Your task to perform on an android device: Add dell xps to the cart on bestbuy Image 0: 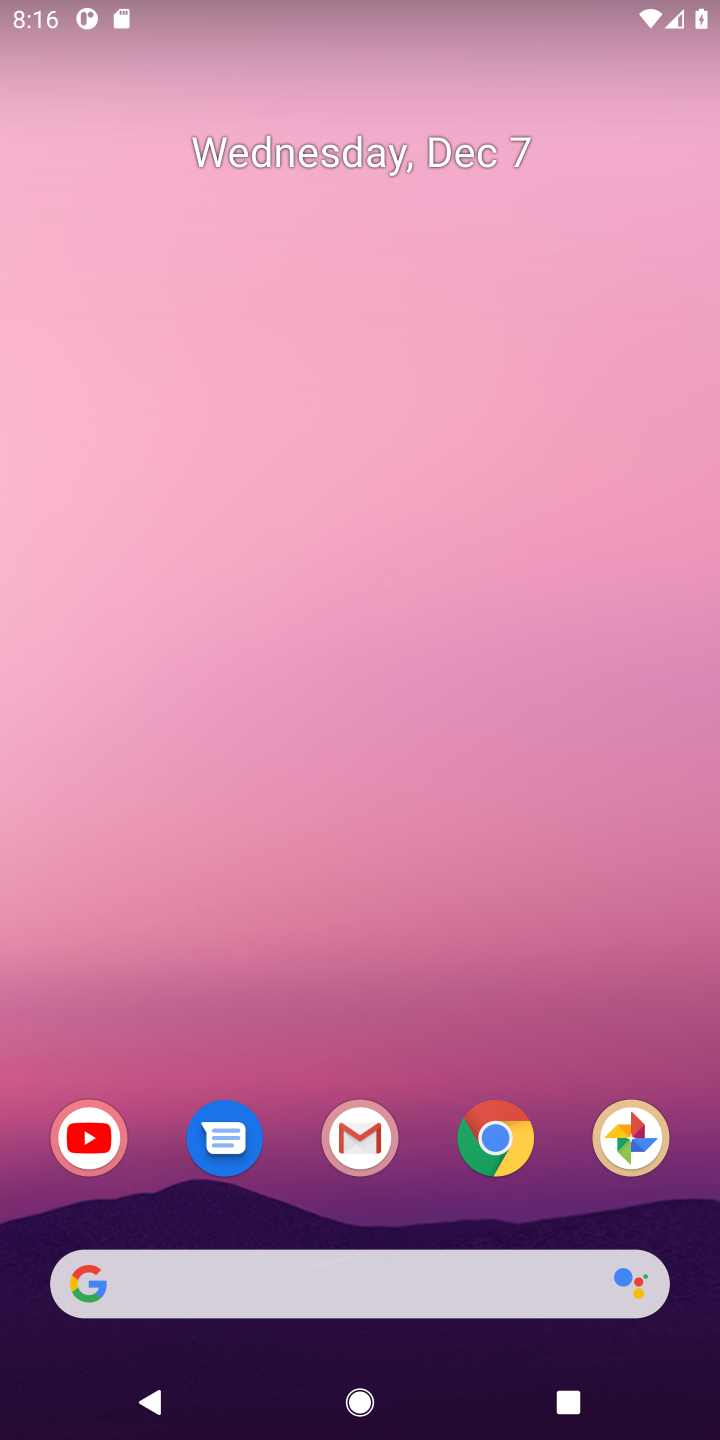
Step 0: press home button
Your task to perform on an android device: Add dell xps to the cart on bestbuy Image 1: 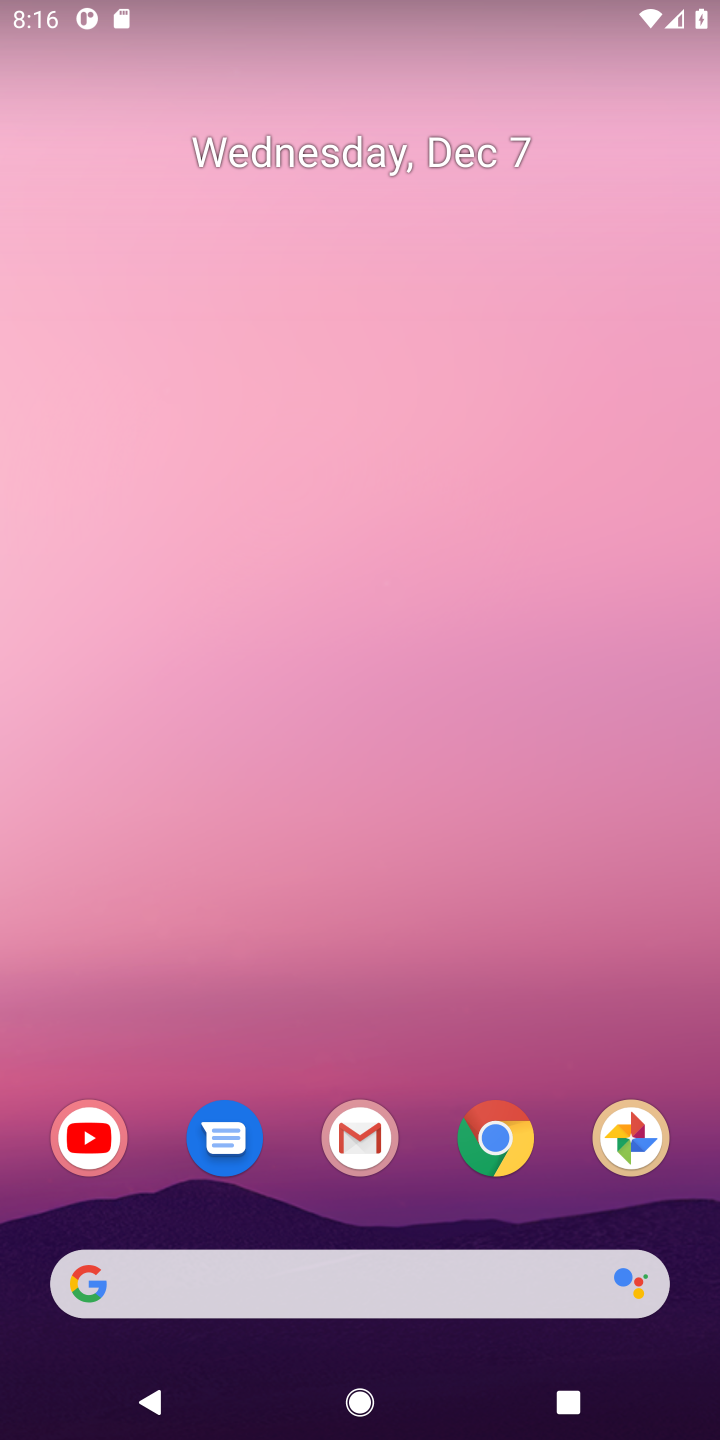
Step 1: click (155, 1291)
Your task to perform on an android device: Add dell xps to the cart on bestbuy Image 2: 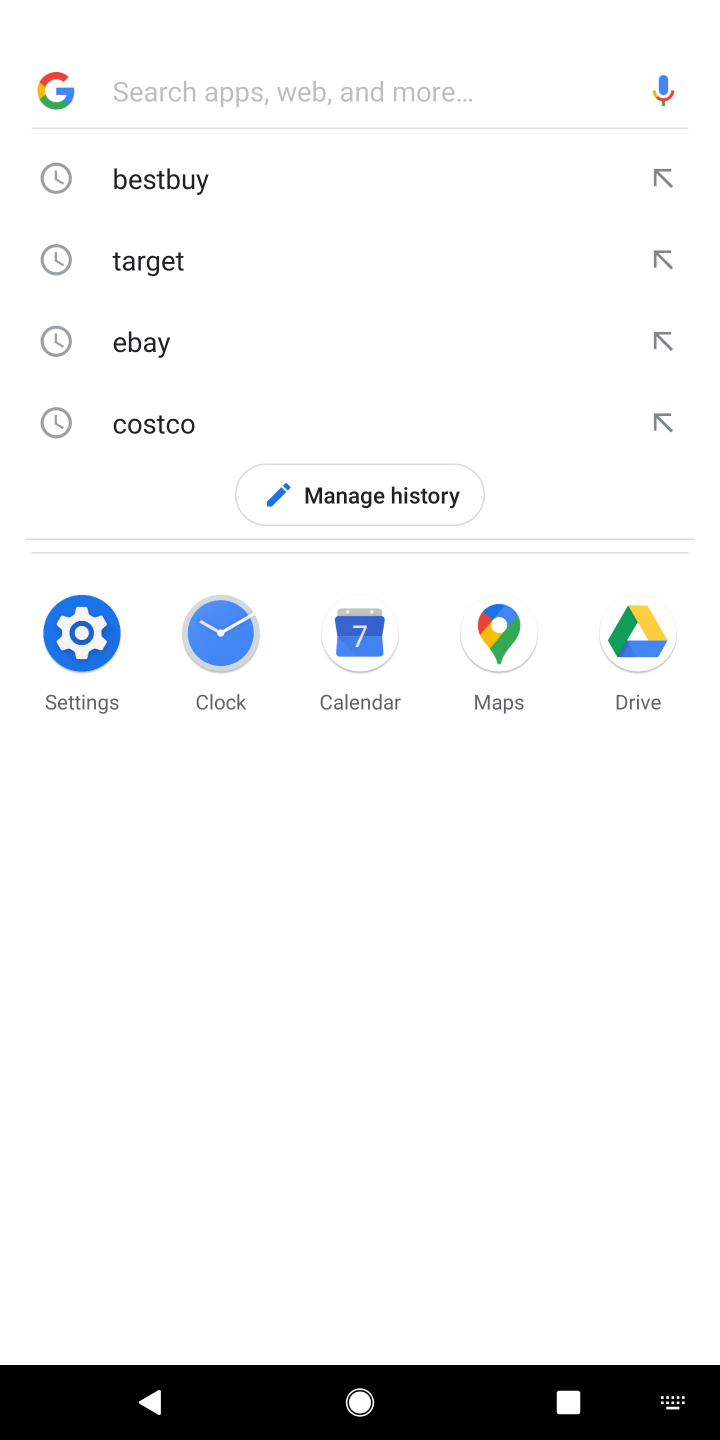
Step 2: type "bestbuy"
Your task to perform on an android device: Add dell xps to the cart on bestbuy Image 3: 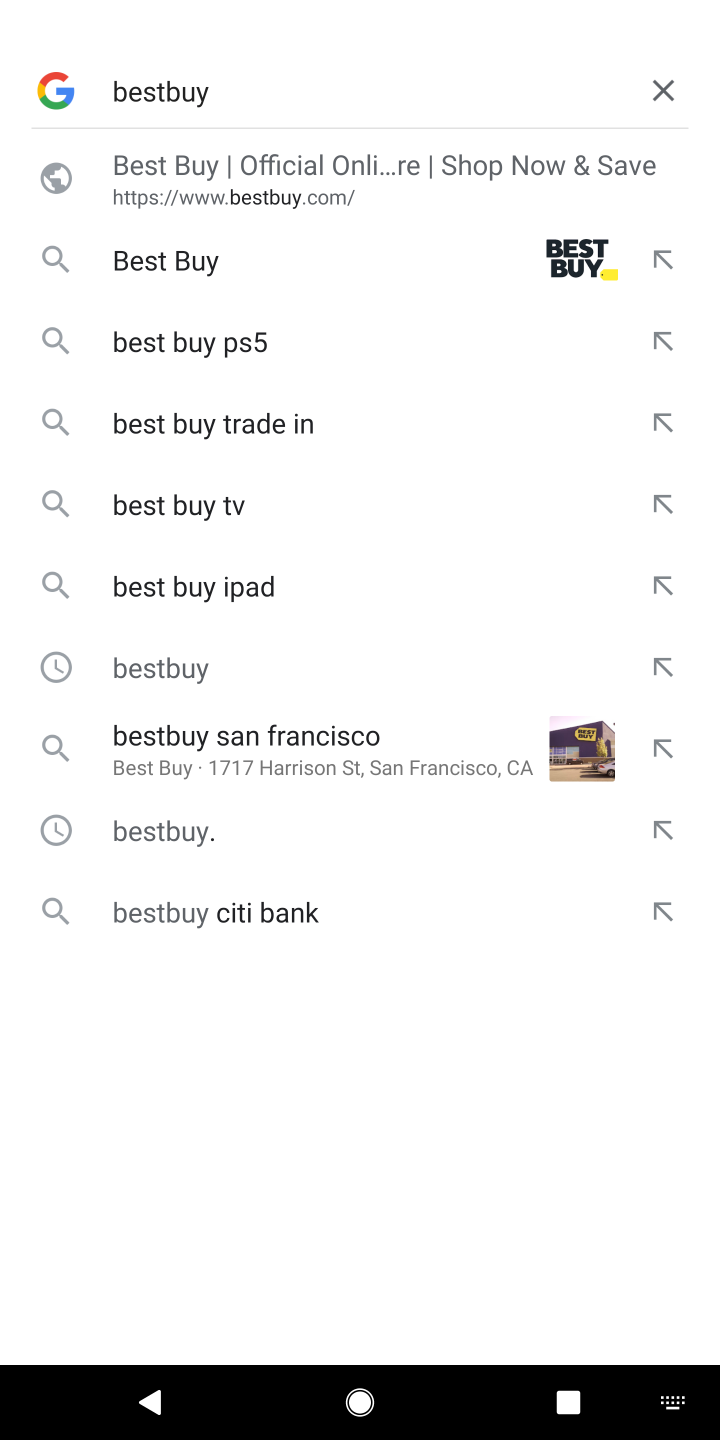
Step 3: press enter
Your task to perform on an android device: Add dell xps to the cart on bestbuy Image 4: 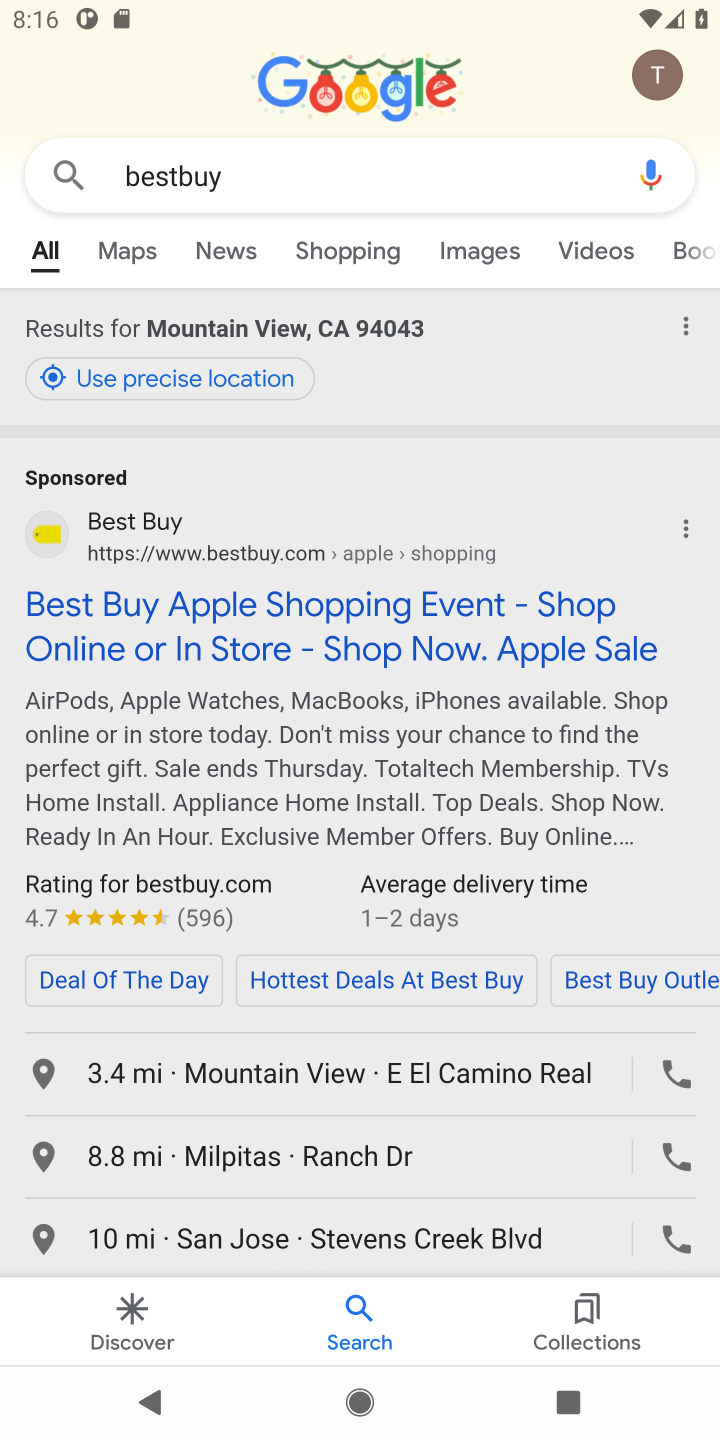
Step 4: click (359, 601)
Your task to perform on an android device: Add dell xps to the cart on bestbuy Image 5: 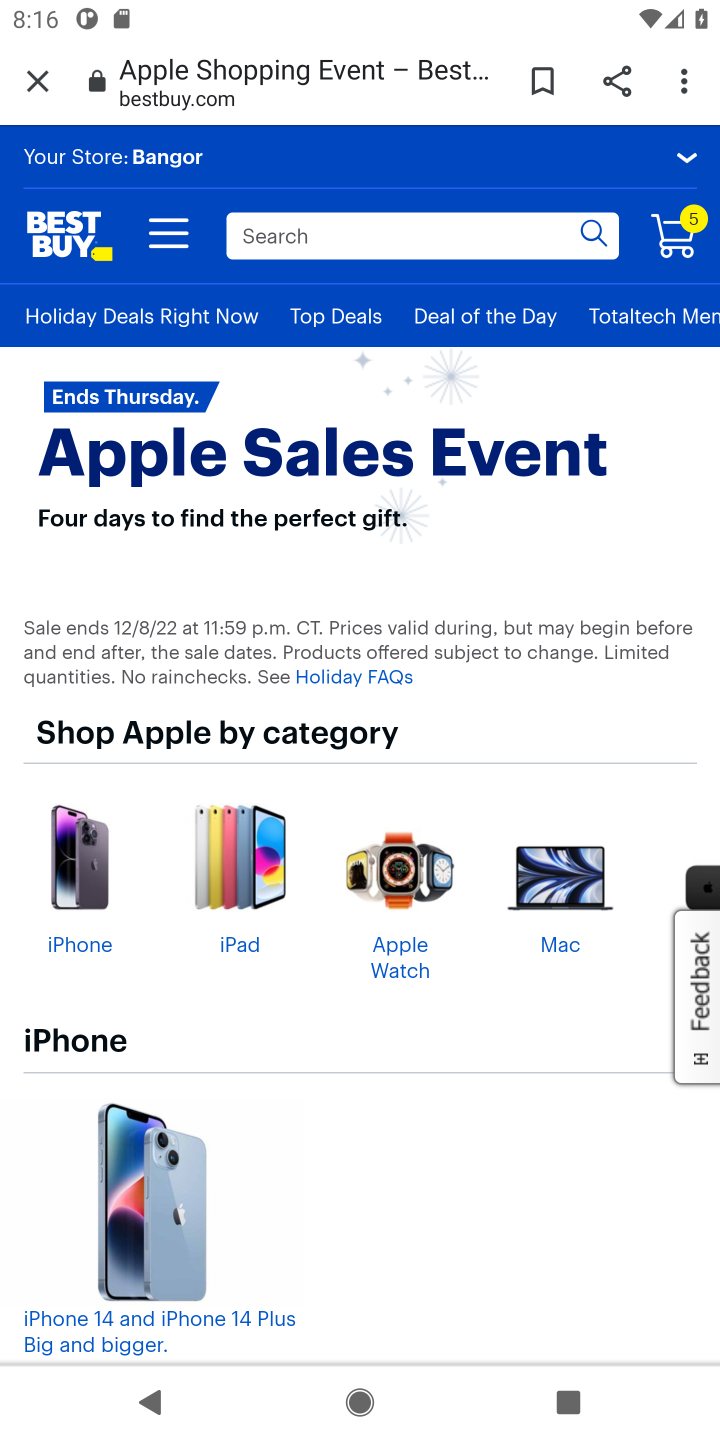
Step 5: click (267, 235)
Your task to perform on an android device: Add dell xps to the cart on bestbuy Image 6: 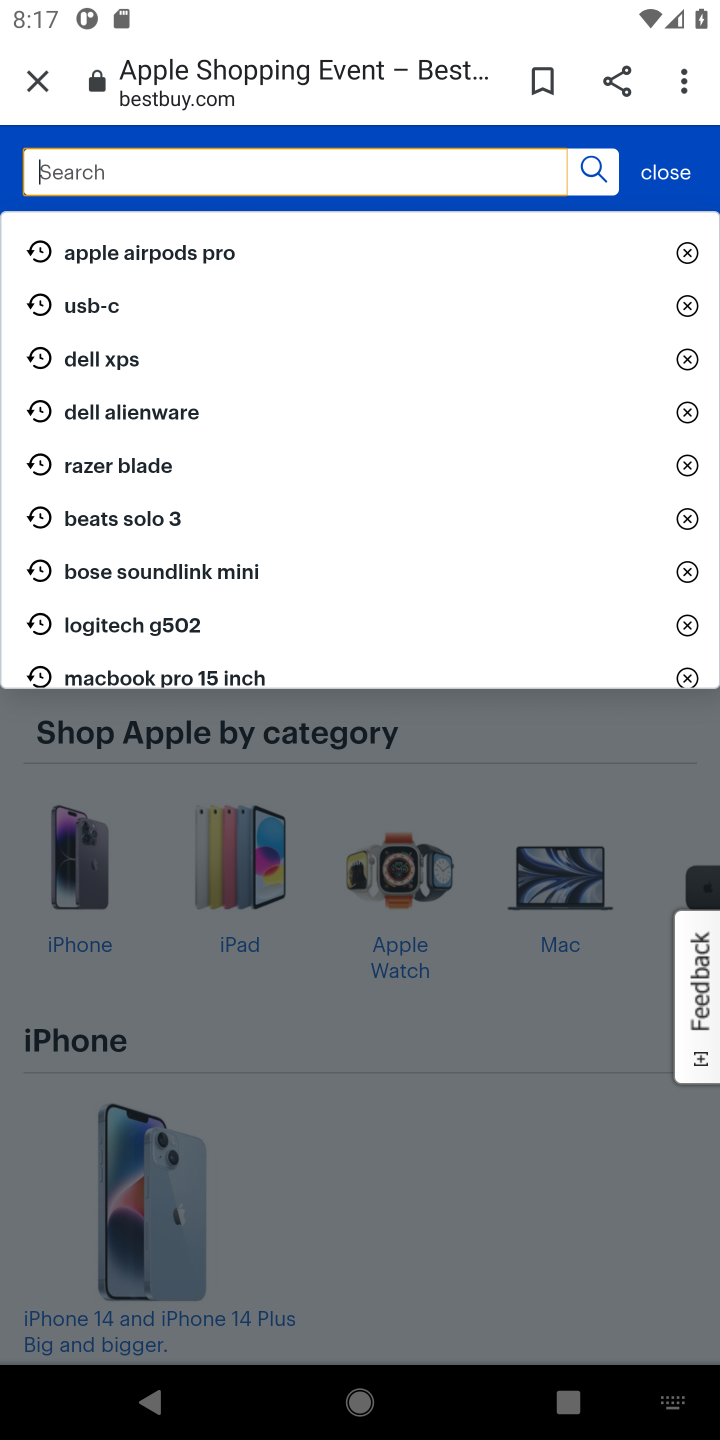
Step 6: press enter
Your task to perform on an android device: Add dell xps to the cart on bestbuy Image 7: 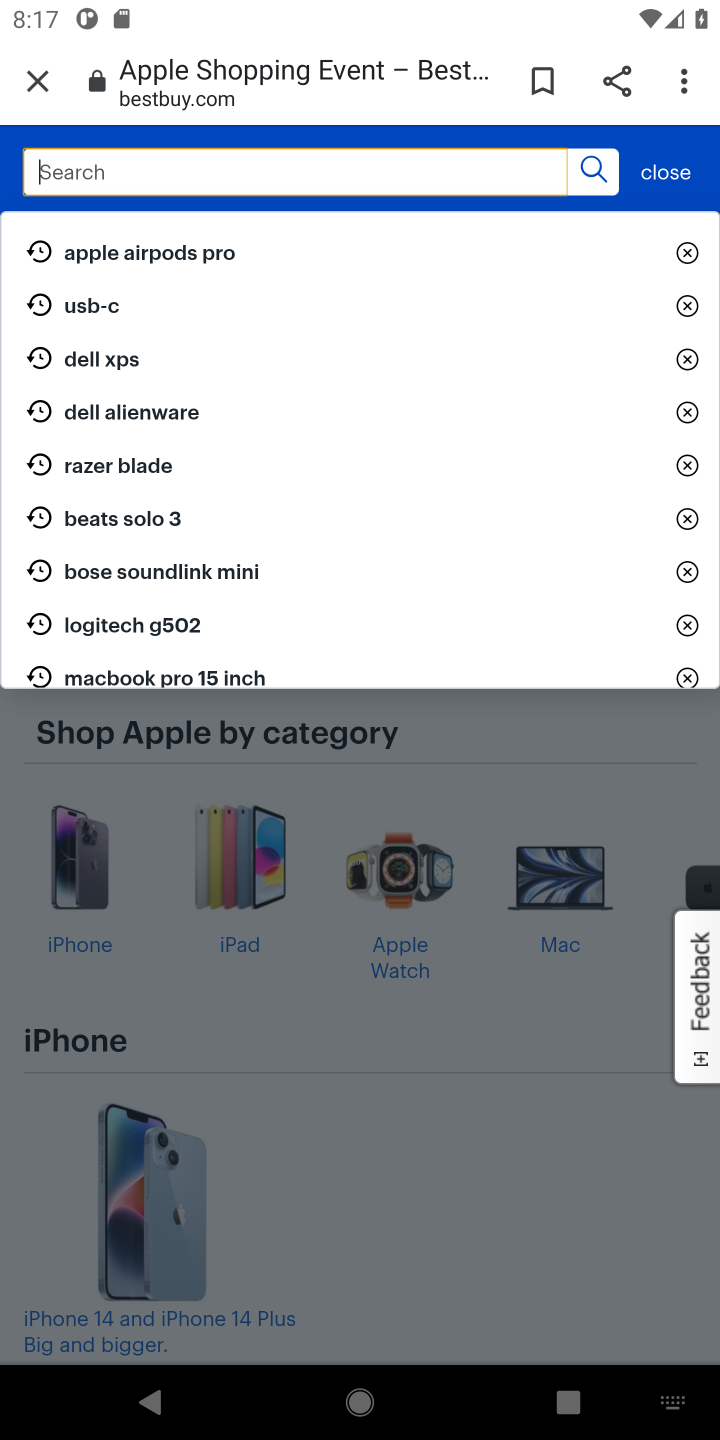
Step 7: type "dell xps"
Your task to perform on an android device: Add dell xps to the cart on bestbuy Image 8: 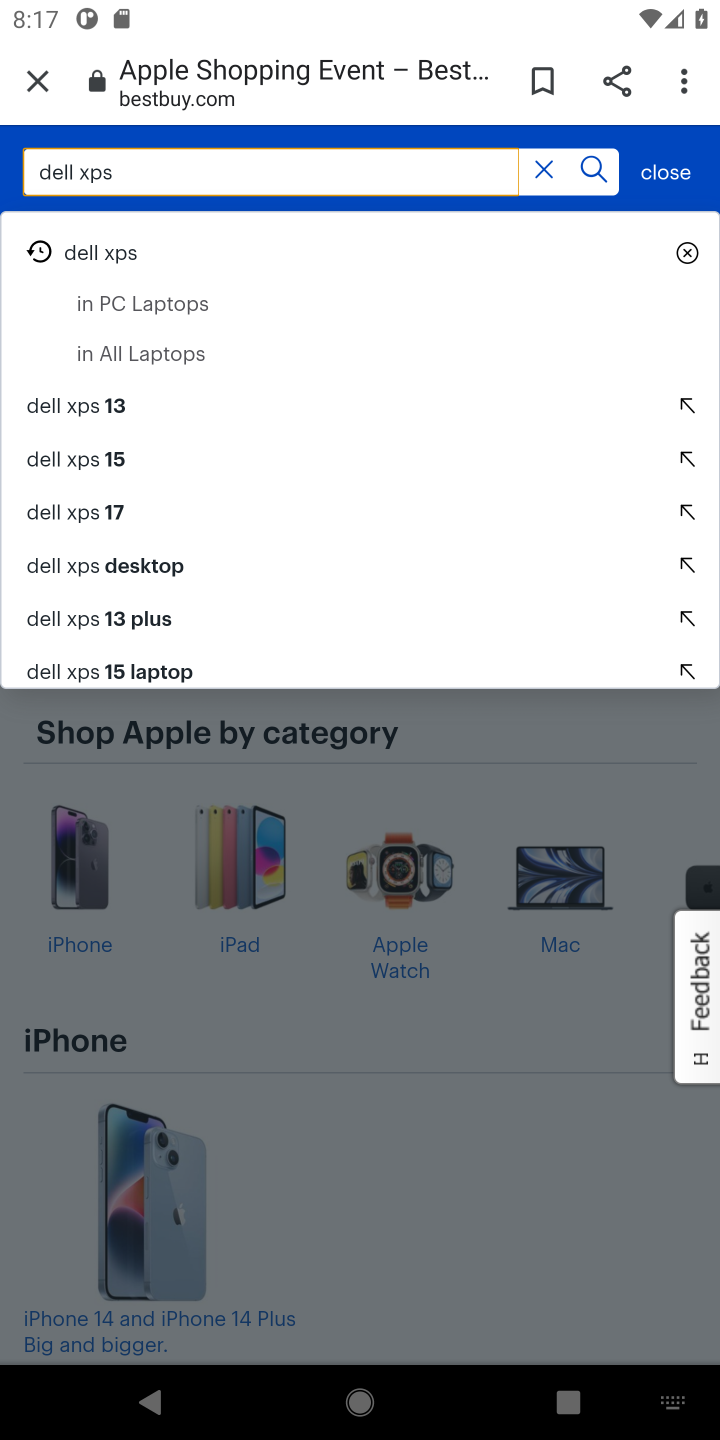
Step 8: click (586, 160)
Your task to perform on an android device: Add dell xps to the cart on bestbuy Image 9: 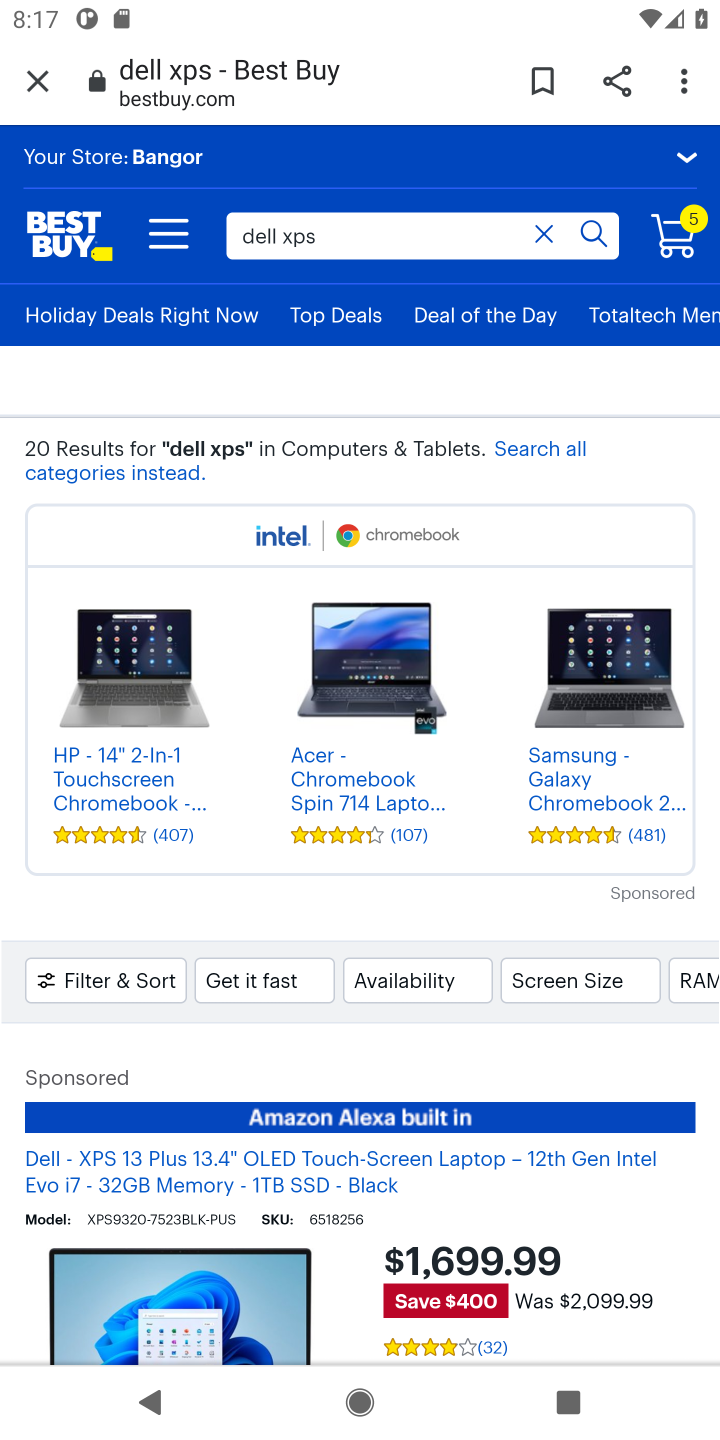
Step 9: drag from (364, 1224) to (441, 415)
Your task to perform on an android device: Add dell xps to the cart on bestbuy Image 10: 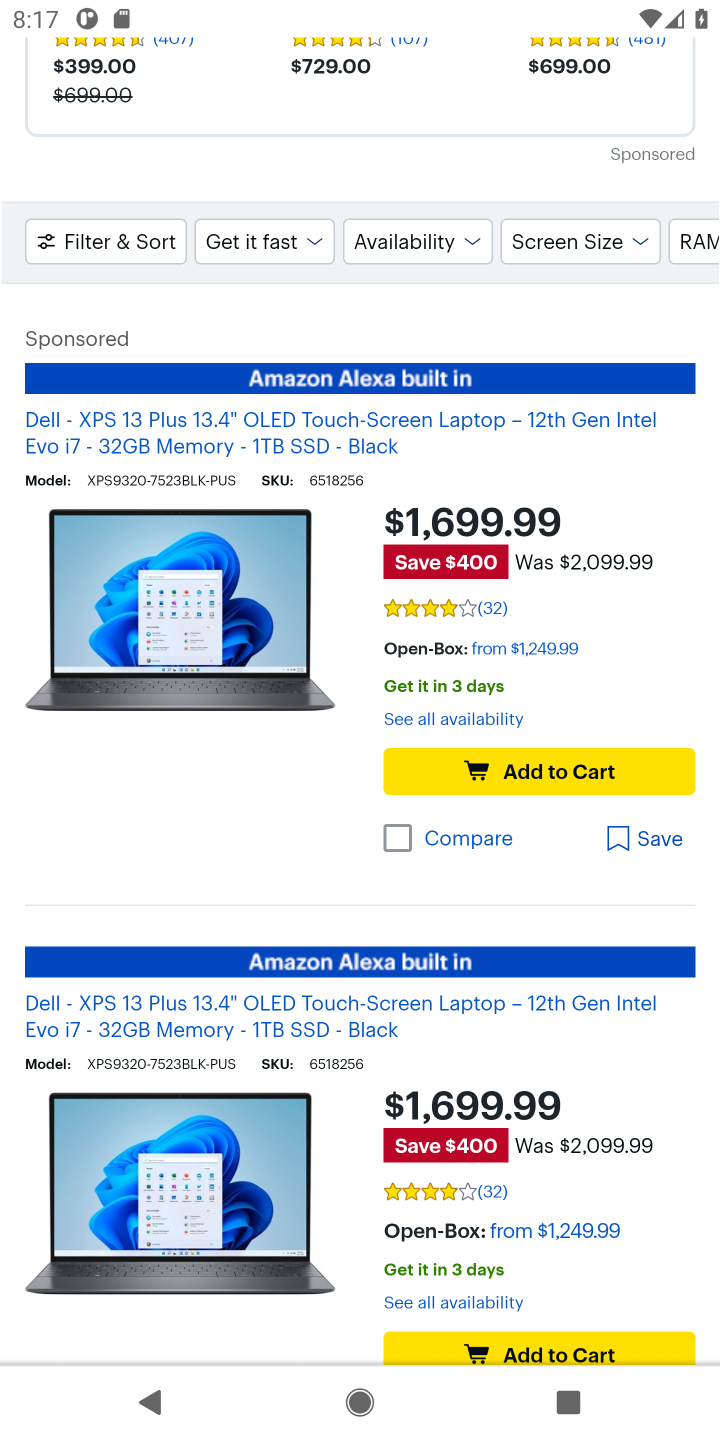
Step 10: drag from (316, 364) to (322, 870)
Your task to perform on an android device: Add dell xps to the cart on bestbuy Image 11: 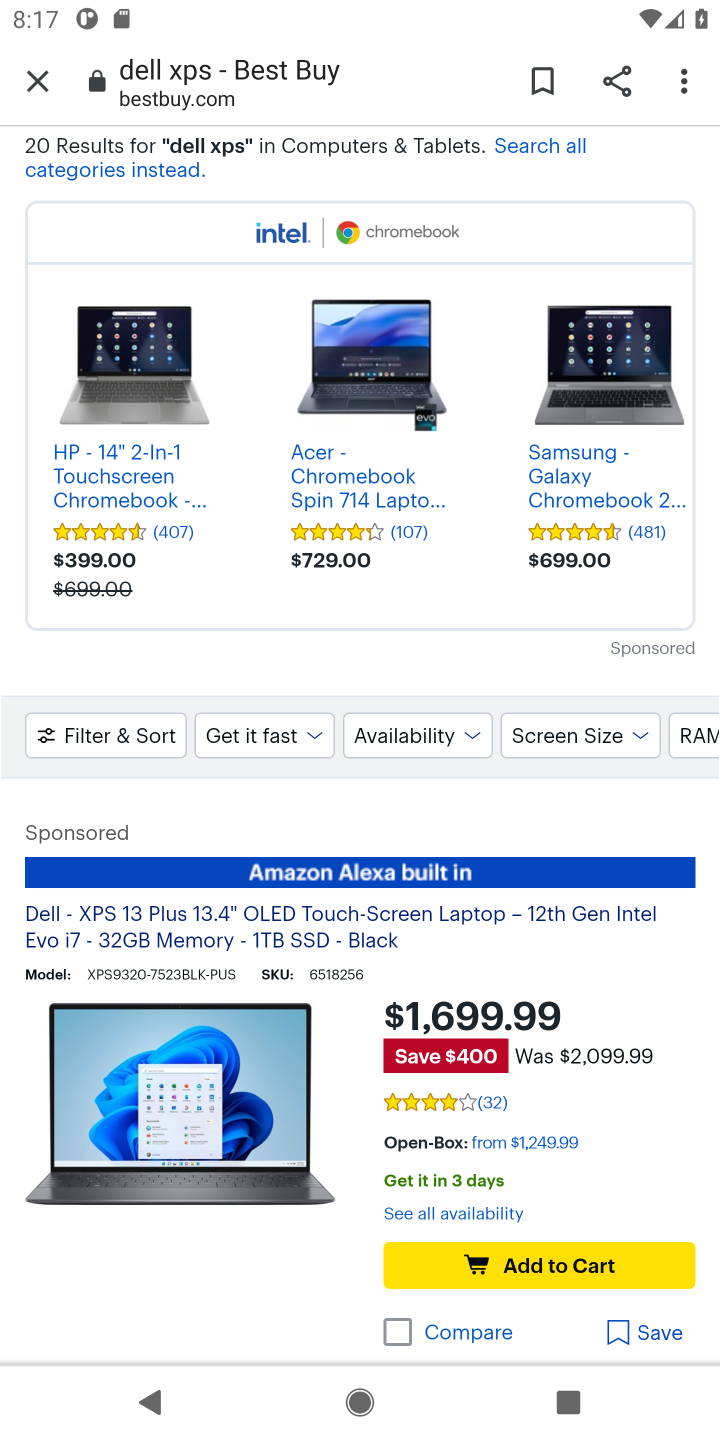
Step 11: click (536, 1259)
Your task to perform on an android device: Add dell xps to the cart on bestbuy Image 12: 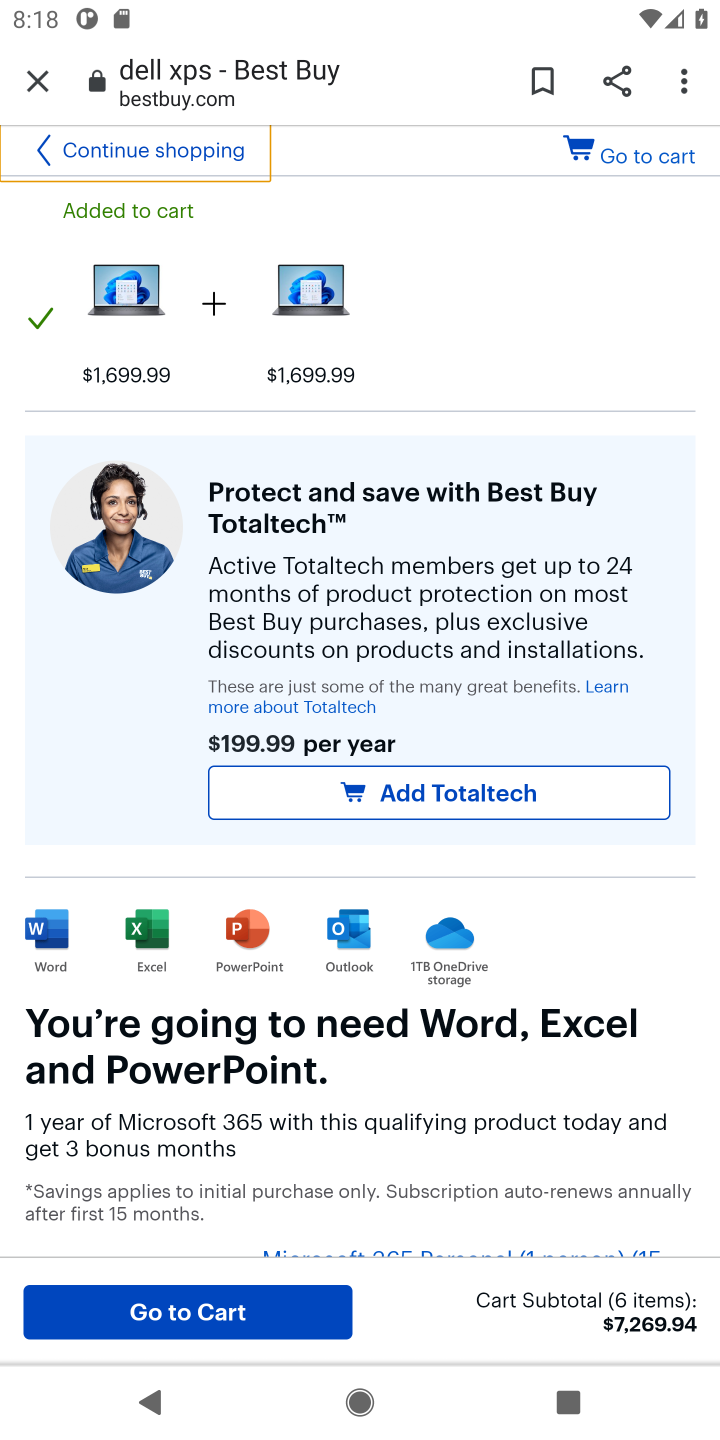
Step 12: task complete